Your task to perform on an android device: Go to privacy settings Image 0: 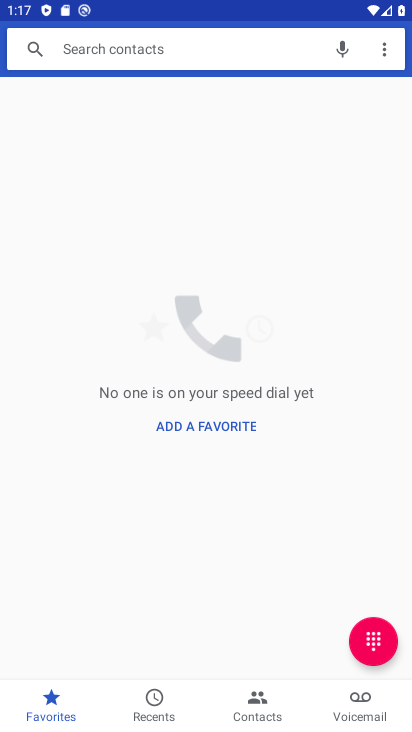
Step 0: press home button
Your task to perform on an android device: Go to privacy settings Image 1: 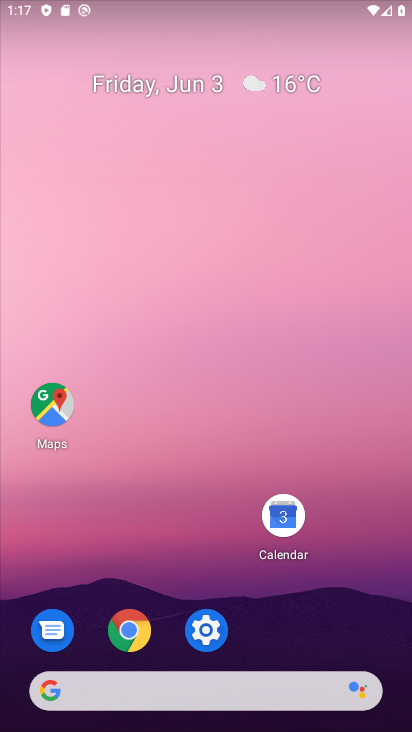
Step 1: drag from (229, 716) to (162, 60)
Your task to perform on an android device: Go to privacy settings Image 2: 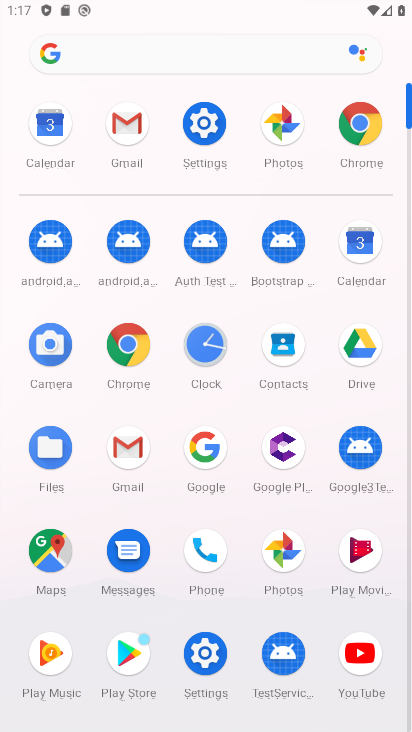
Step 2: click (196, 122)
Your task to perform on an android device: Go to privacy settings Image 3: 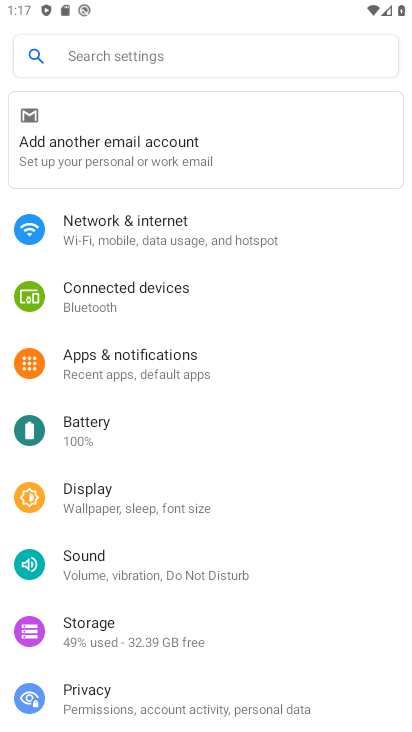
Step 3: click (119, 692)
Your task to perform on an android device: Go to privacy settings Image 4: 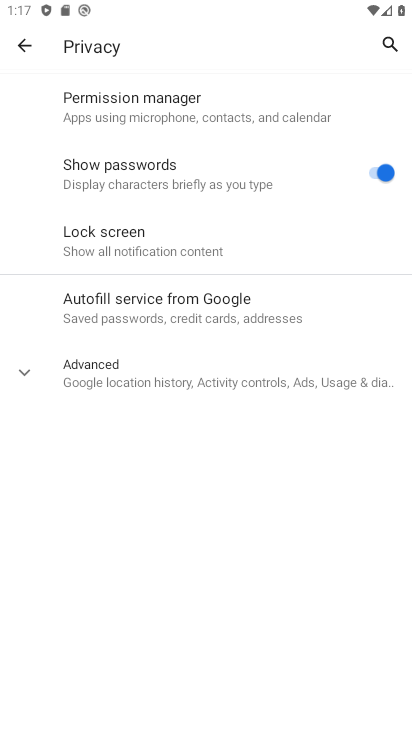
Step 4: task complete